Your task to perform on an android device: open a bookmark in the chrome app Image 0: 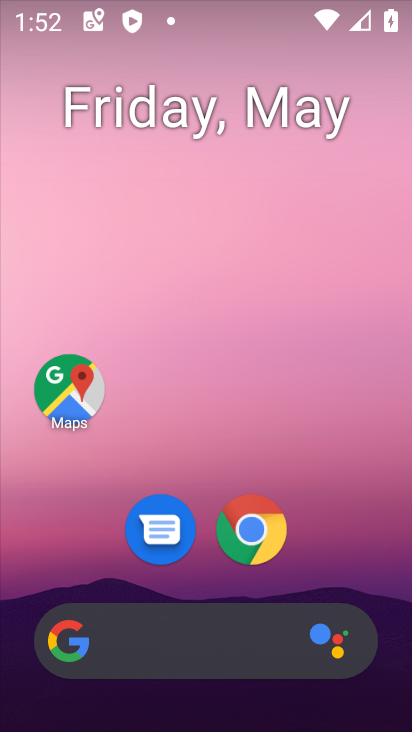
Step 0: click (251, 547)
Your task to perform on an android device: open a bookmark in the chrome app Image 1: 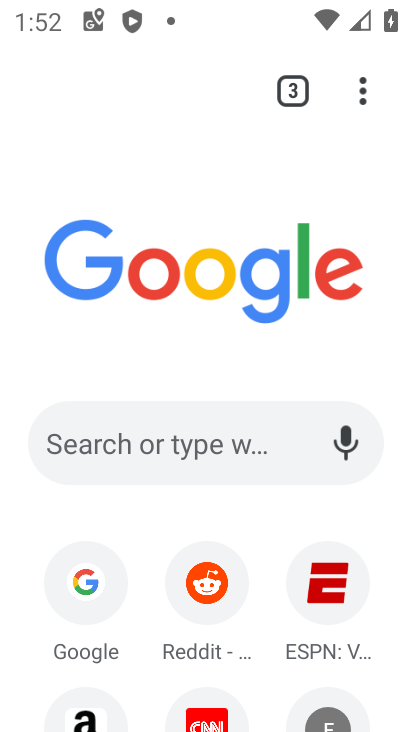
Step 1: click (362, 87)
Your task to perform on an android device: open a bookmark in the chrome app Image 2: 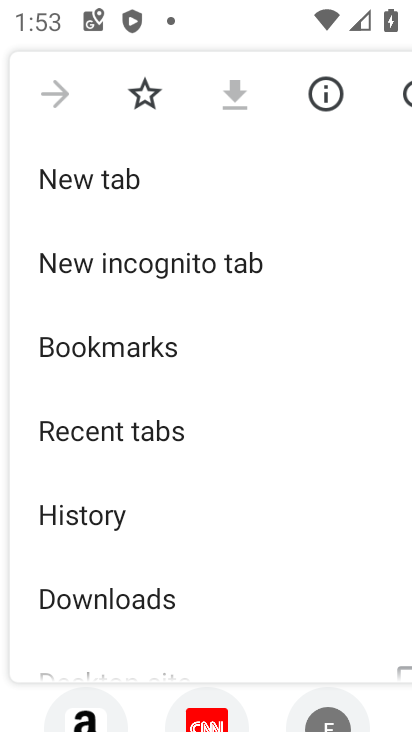
Step 2: click (213, 364)
Your task to perform on an android device: open a bookmark in the chrome app Image 3: 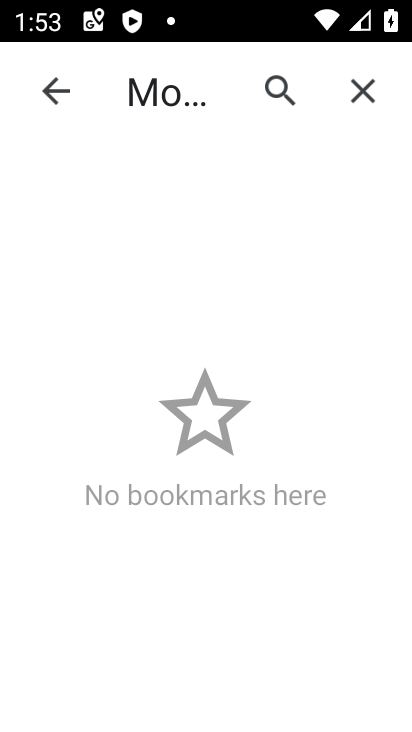
Step 3: task complete